Your task to perform on an android device: Clear all items from cart on costco.com. Add "lenovo thinkpad" to the cart on costco.com, then select checkout. Image 0: 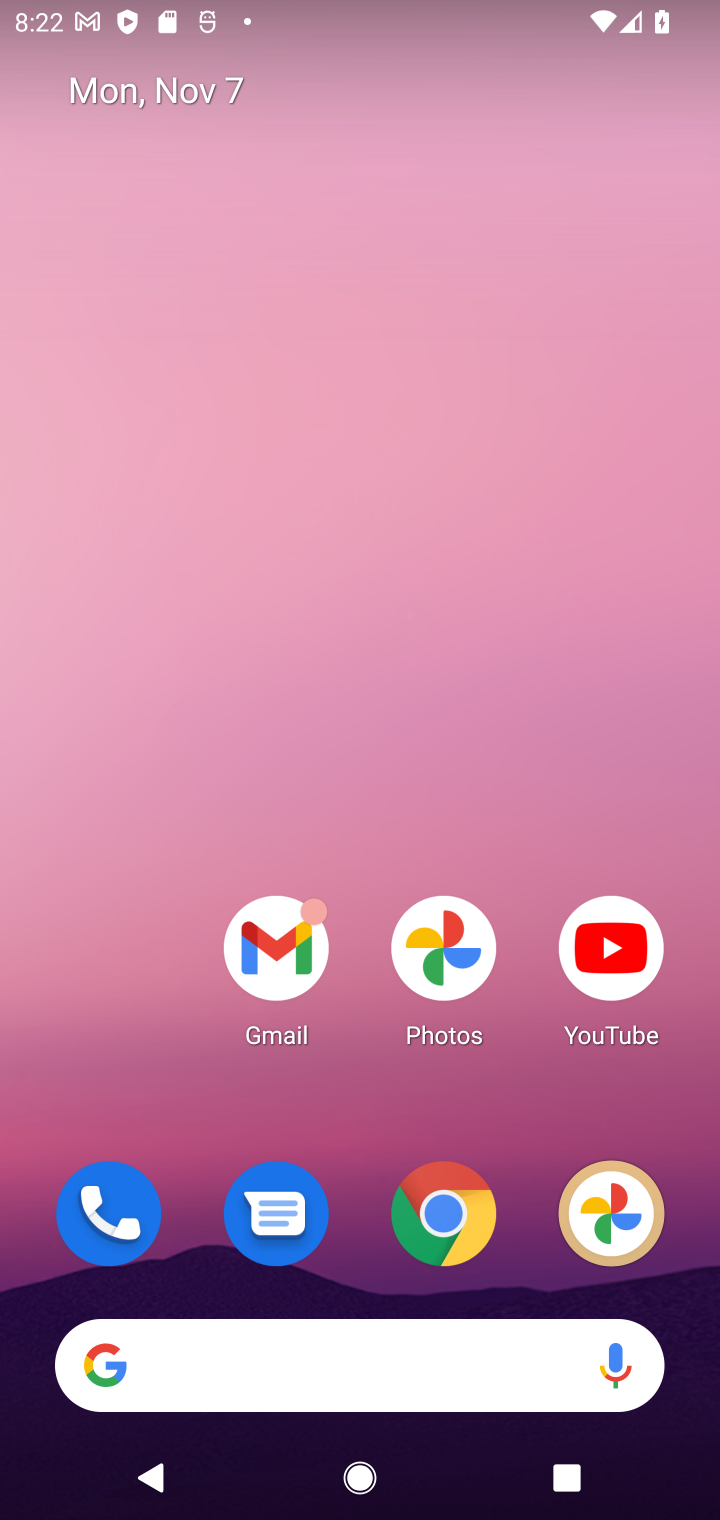
Step 0: click (456, 1219)
Your task to perform on an android device: Clear all items from cart on costco.com. Add "lenovo thinkpad" to the cart on costco.com, then select checkout. Image 1: 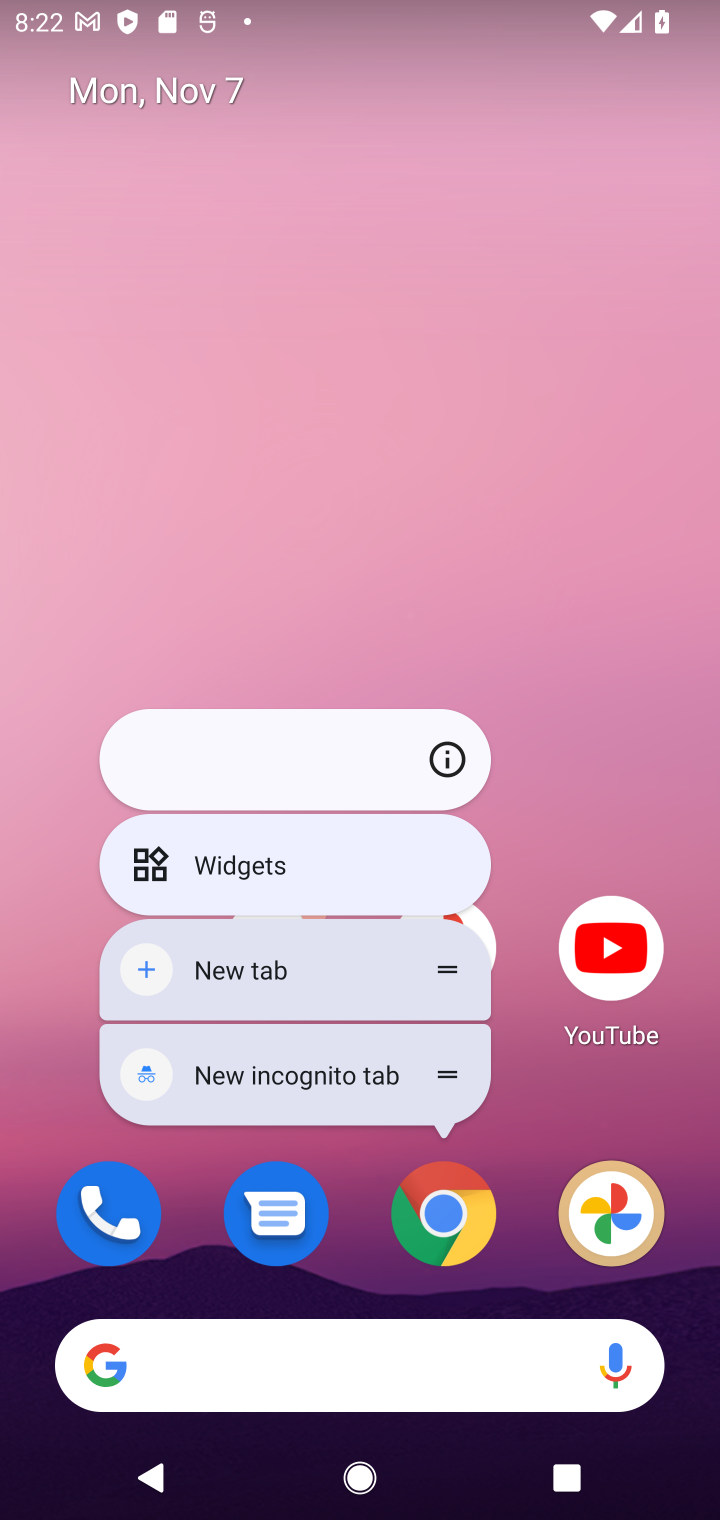
Step 1: click (445, 1215)
Your task to perform on an android device: Clear all items from cart on costco.com. Add "lenovo thinkpad" to the cart on costco.com, then select checkout. Image 2: 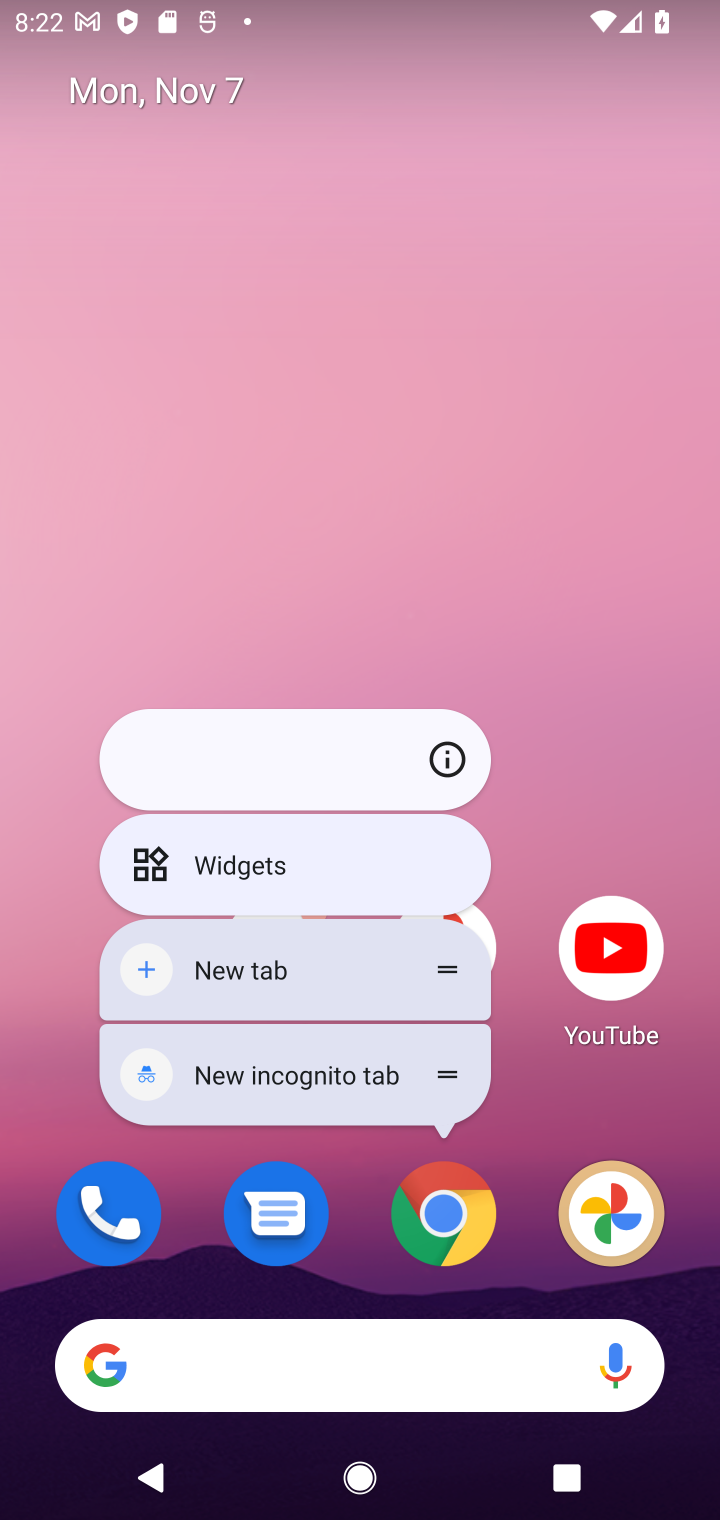
Step 2: click (447, 1215)
Your task to perform on an android device: Clear all items from cart on costco.com. Add "lenovo thinkpad" to the cart on costco.com, then select checkout. Image 3: 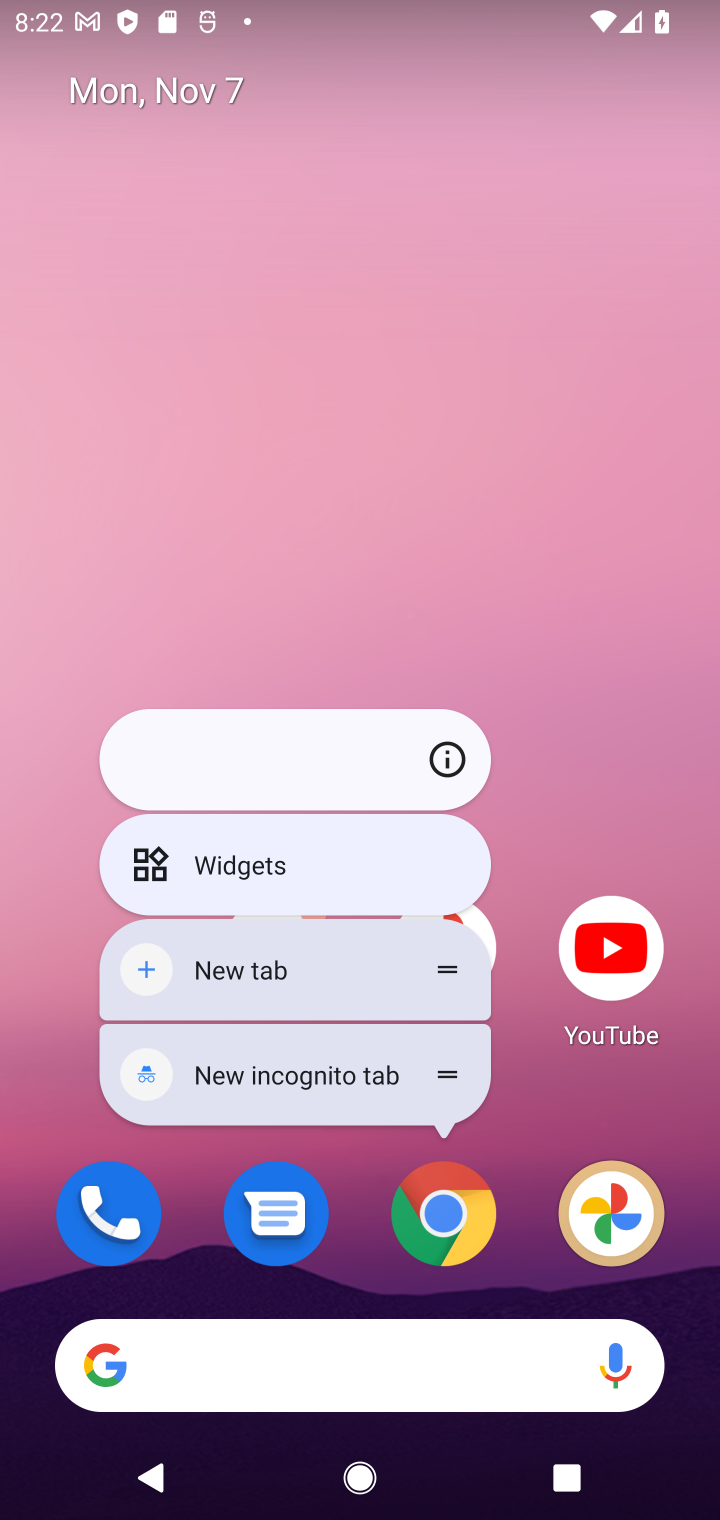
Step 3: click (447, 1215)
Your task to perform on an android device: Clear all items from cart on costco.com. Add "lenovo thinkpad" to the cart on costco.com, then select checkout. Image 4: 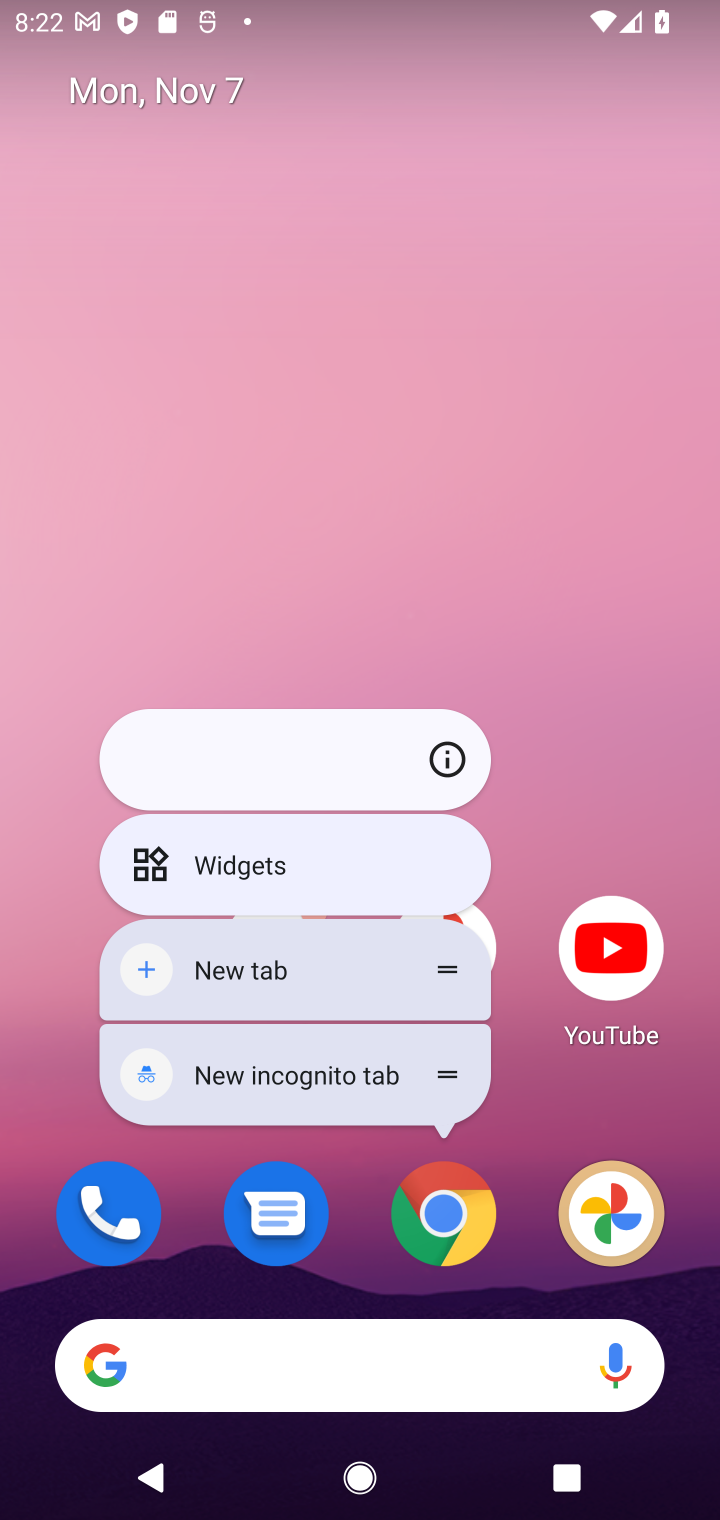
Step 4: click (447, 1215)
Your task to perform on an android device: Clear all items from cart on costco.com. Add "lenovo thinkpad" to the cart on costco.com, then select checkout. Image 5: 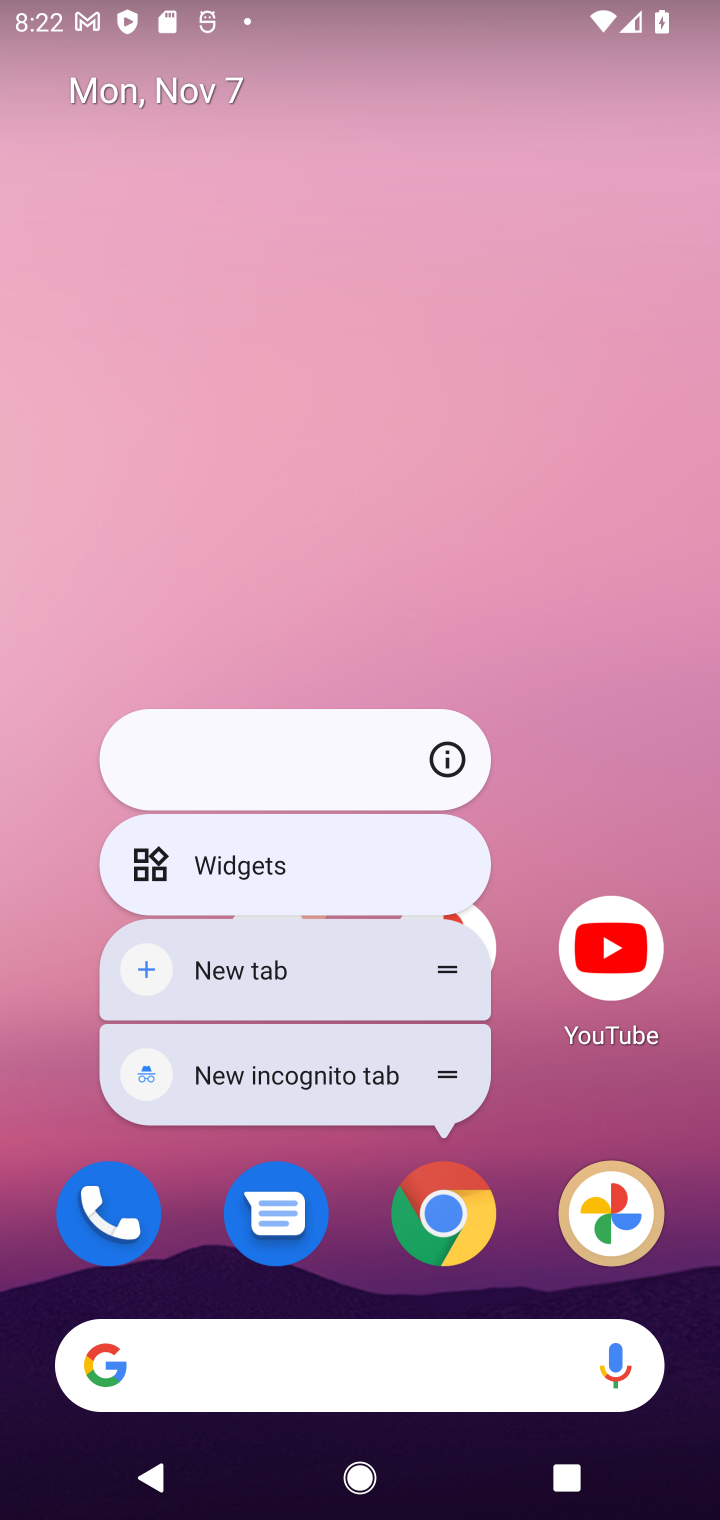
Step 5: click (444, 1203)
Your task to perform on an android device: Clear all items from cart on costco.com. Add "lenovo thinkpad" to the cart on costco.com, then select checkout. Image 6: 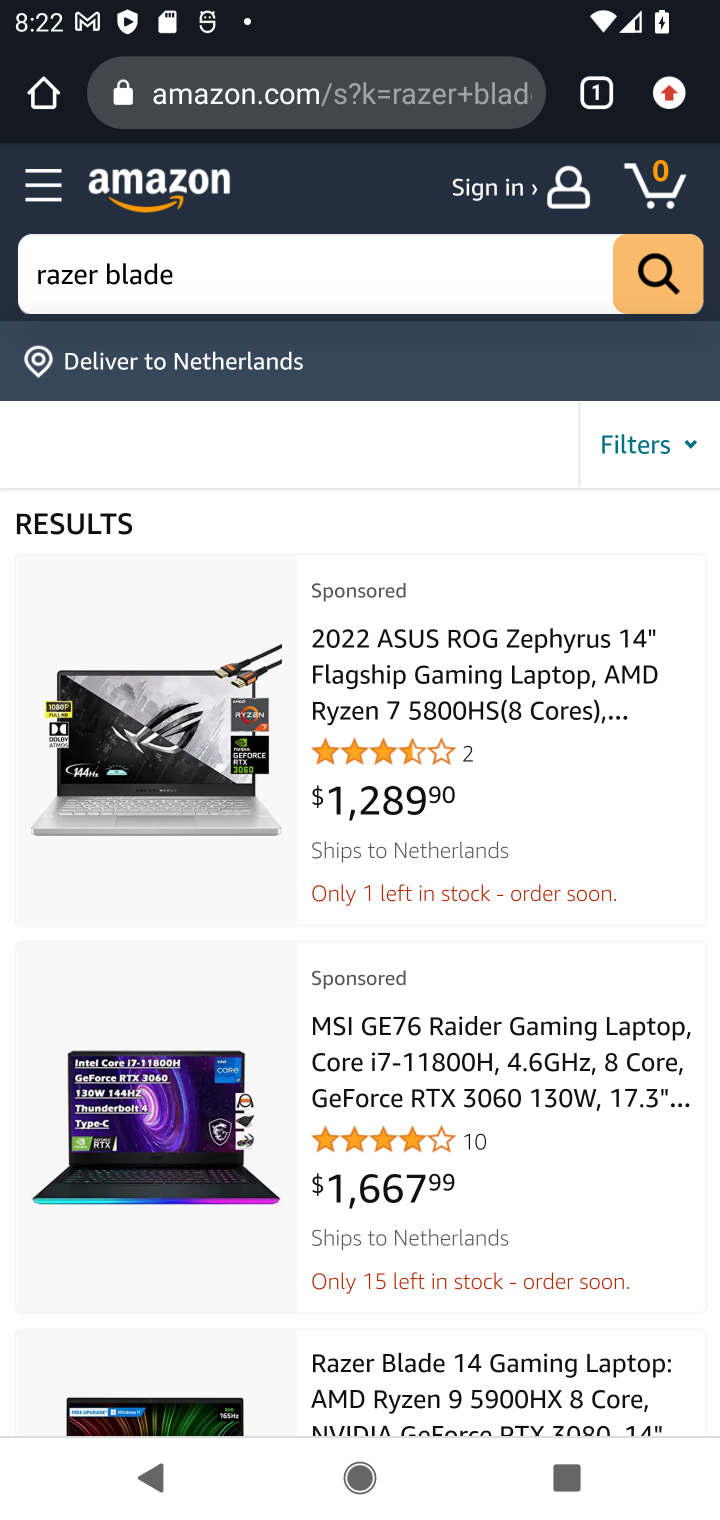
Step 6: click (318, 94)
Your task to perform on an android device: Clear all items from cart on costco.com. Add "lenovo thinkpad" to the cart on costco.com, then select checkout. Image 7: 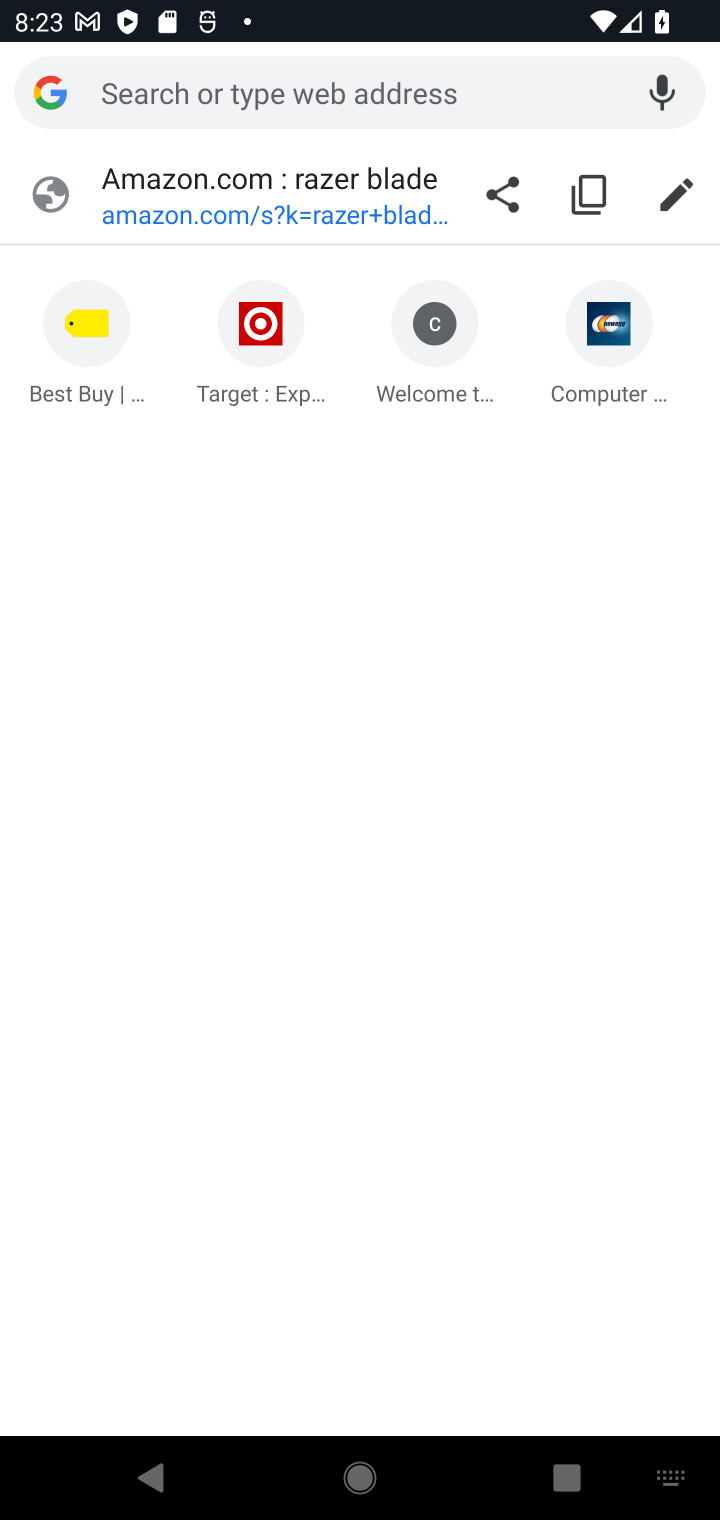
Step 7: type "costco.com"
Your task to perform on an android device: Clear all items from cart on costco.com. Add "lenovo thinkpad" to the cart on costco.com, then select checkout. Image 8: 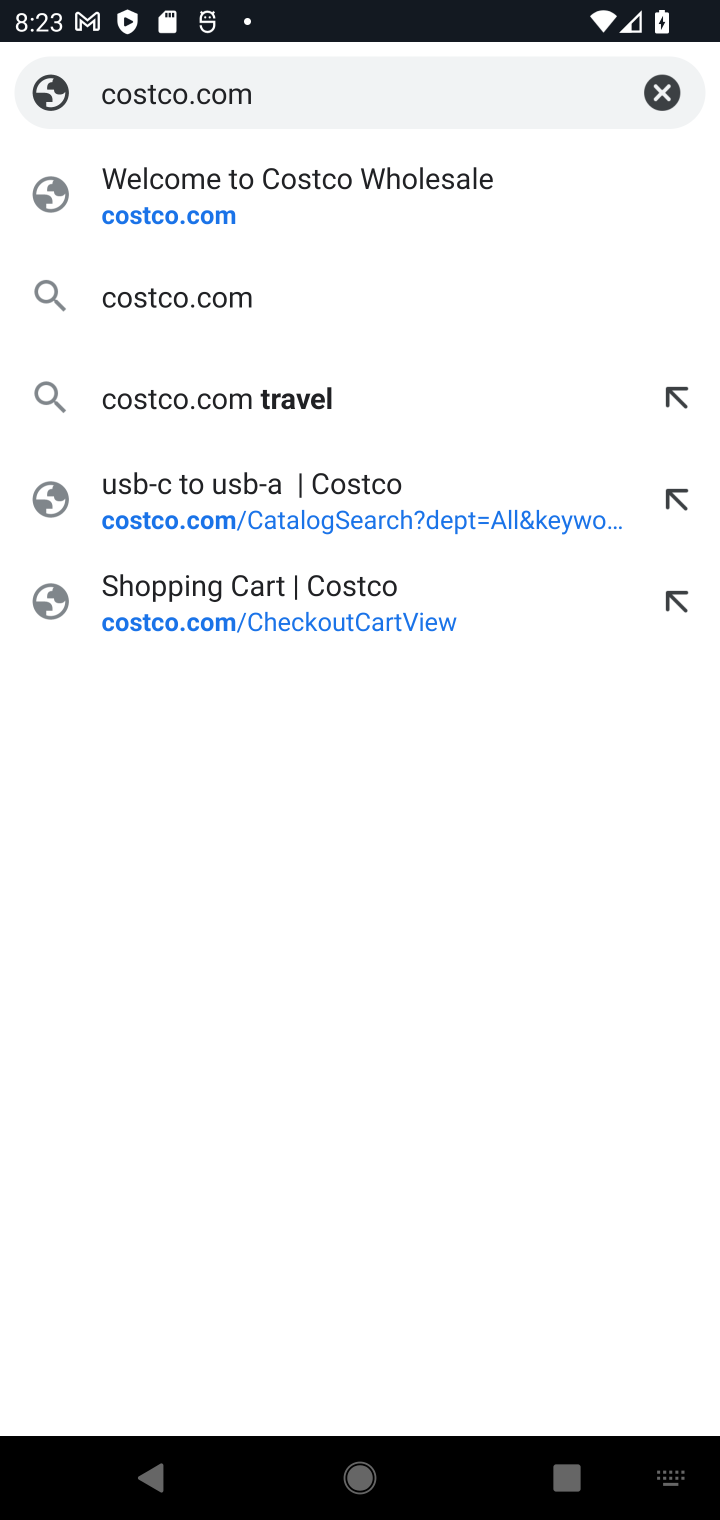
Step 8: click (124, 196)
Your task to perform on an android device: Clear all items from cart on costco.com. Add "lenovo thinkpad" to the cart on costco.com, then select checkout. Image 9: 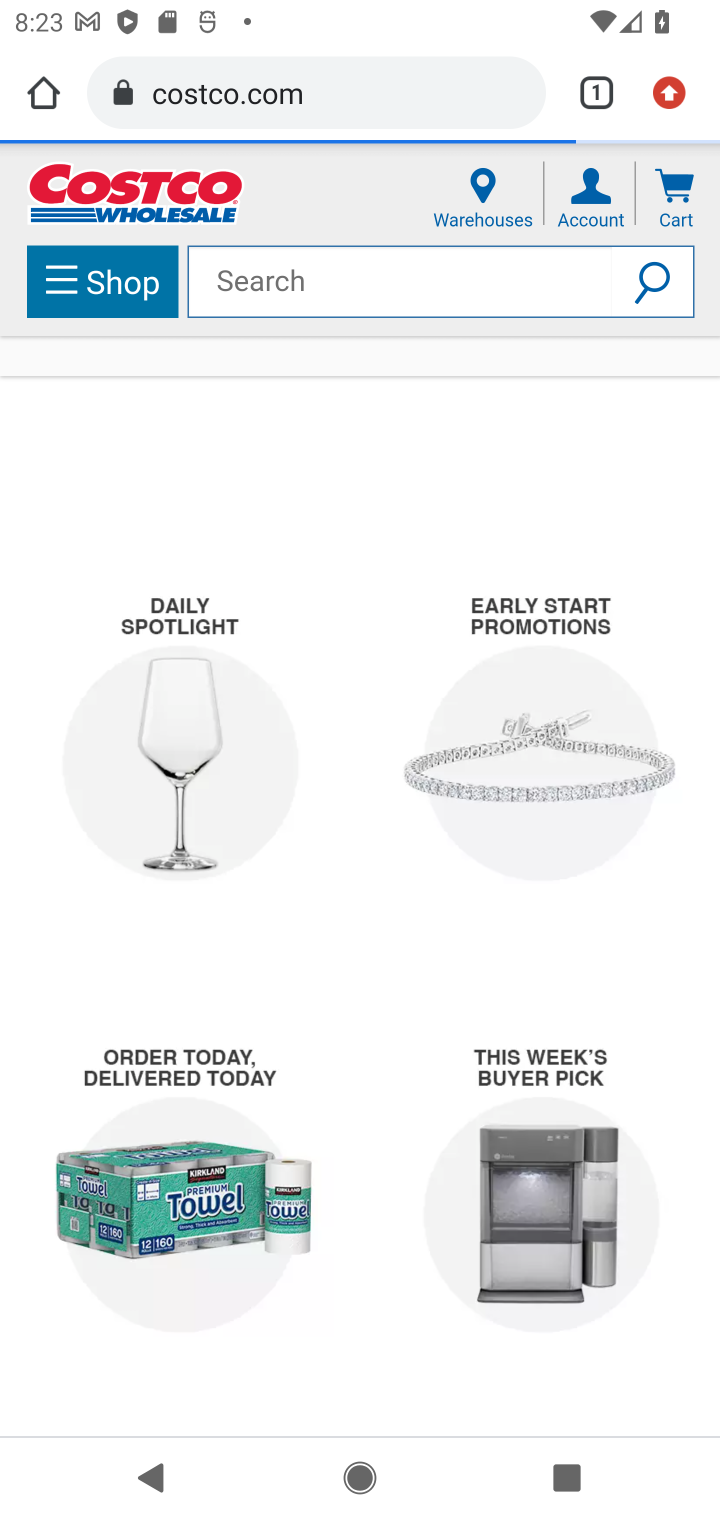
Step 9: click (668, 199)
Your task to perform on an android device: Clear all items from cart on costco.com. Add "lenovo thinkpad" to the cart on costco.com, then select checkout. Image 10: 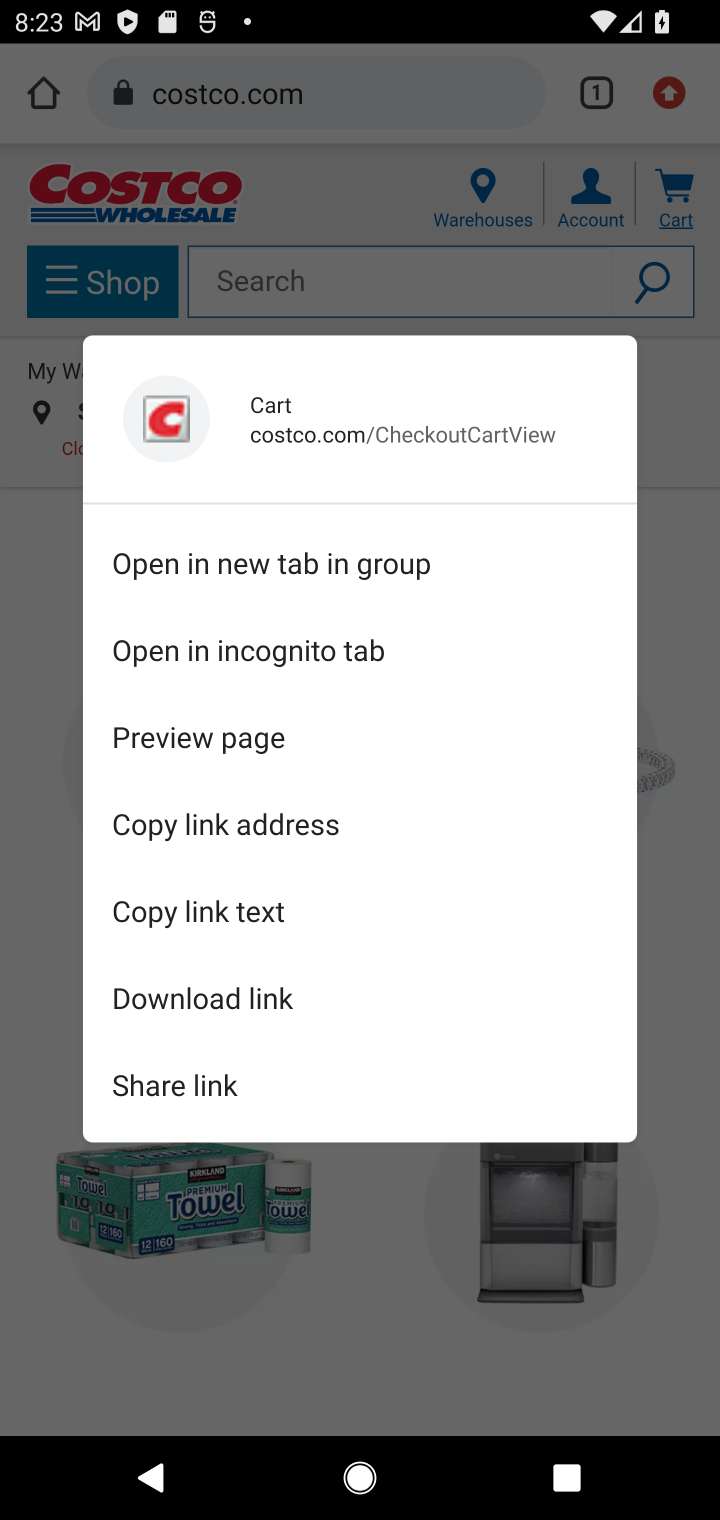
Step 10: click (668, 199)
Your task to perform on an android device: Clear all items from cart on costco.com. Add "lenovo thinkpad" to the cart on costco.com, then select checkout. Image 11: 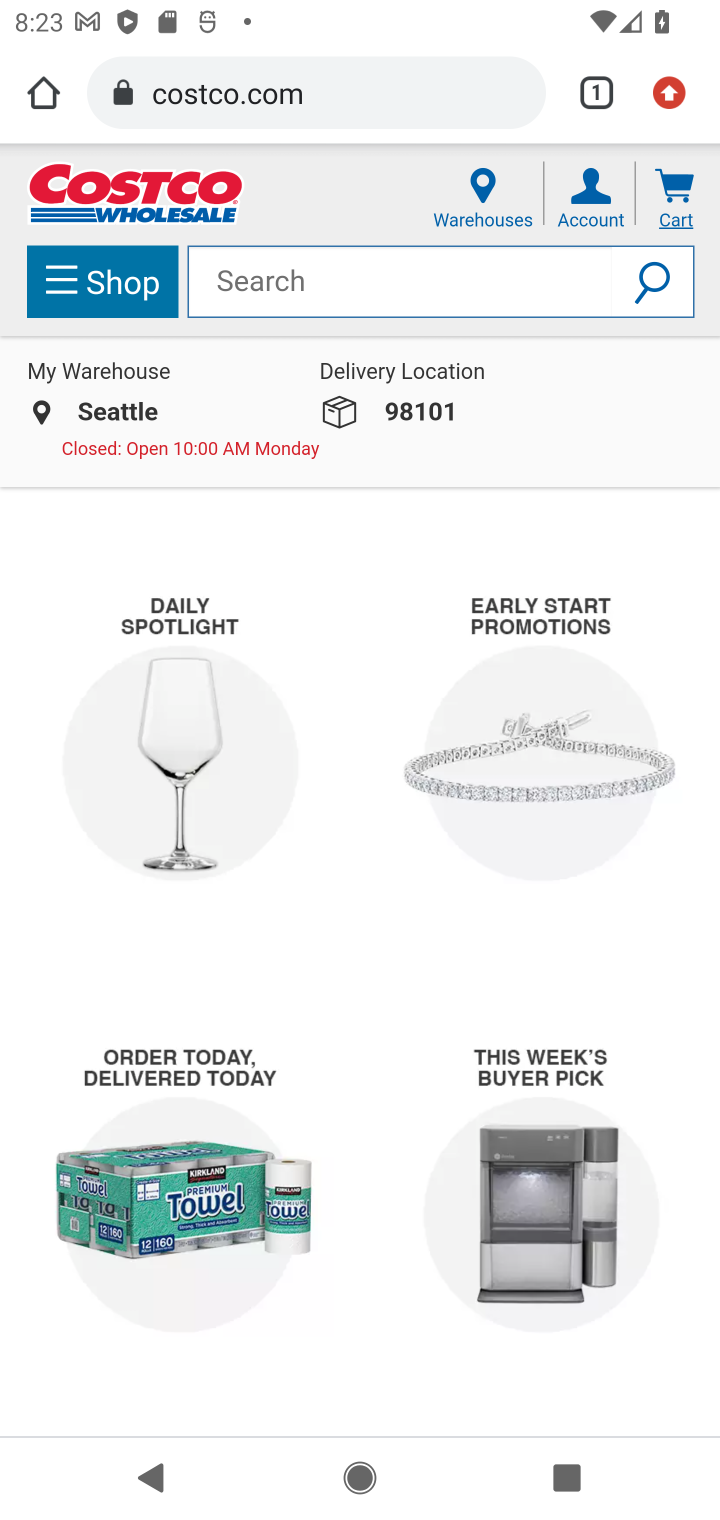
Step 11: click (683, 195)
Your task to perform on an android device: Clear all items from cart on costco.com. Add "lenovo thinkpad" to the cart on costco.com, then select checkout. Image 12: 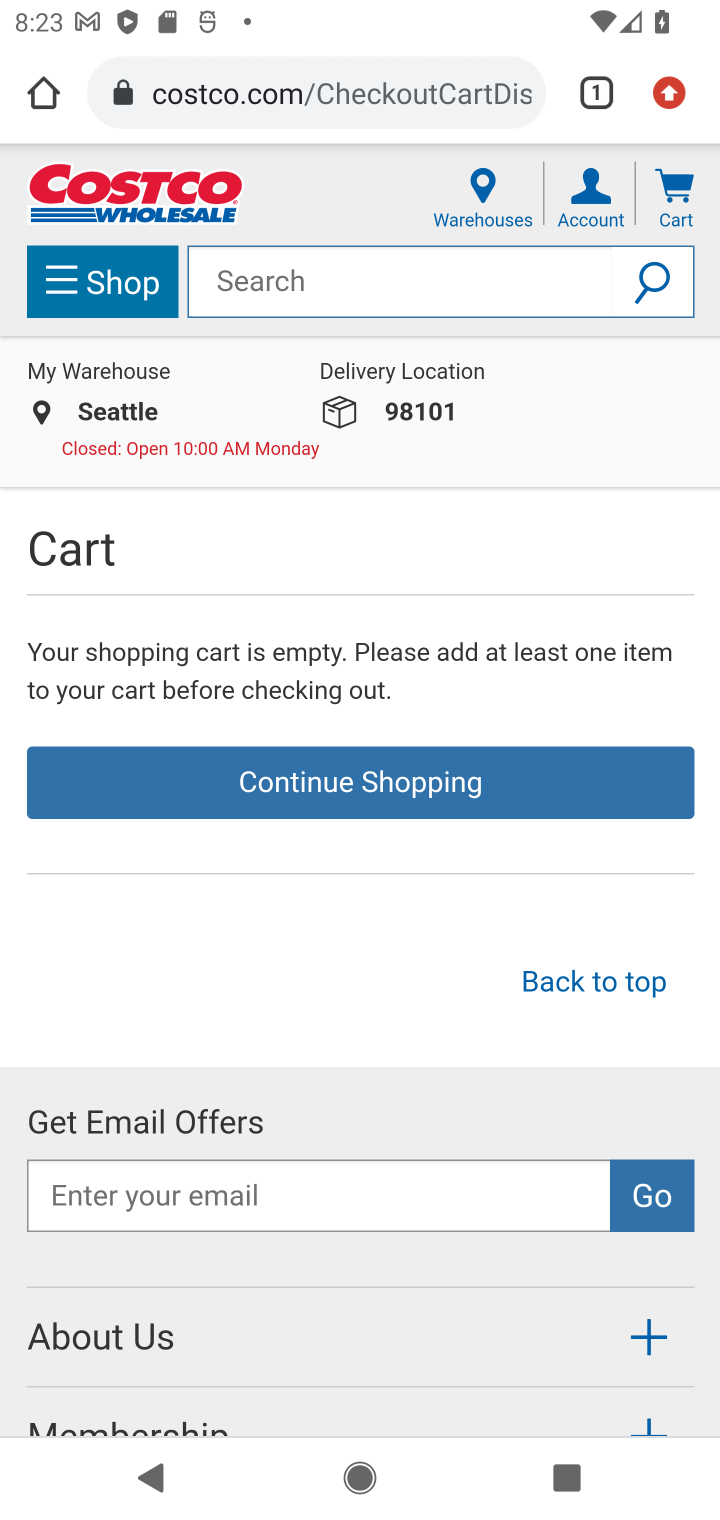
Step 12: click (269, 287)
Your task to perform on an android device: Clear all items from cart on costco.com. Add "lenovo thinkpad" to the cart on costco.com, then select checkout. Image 13: 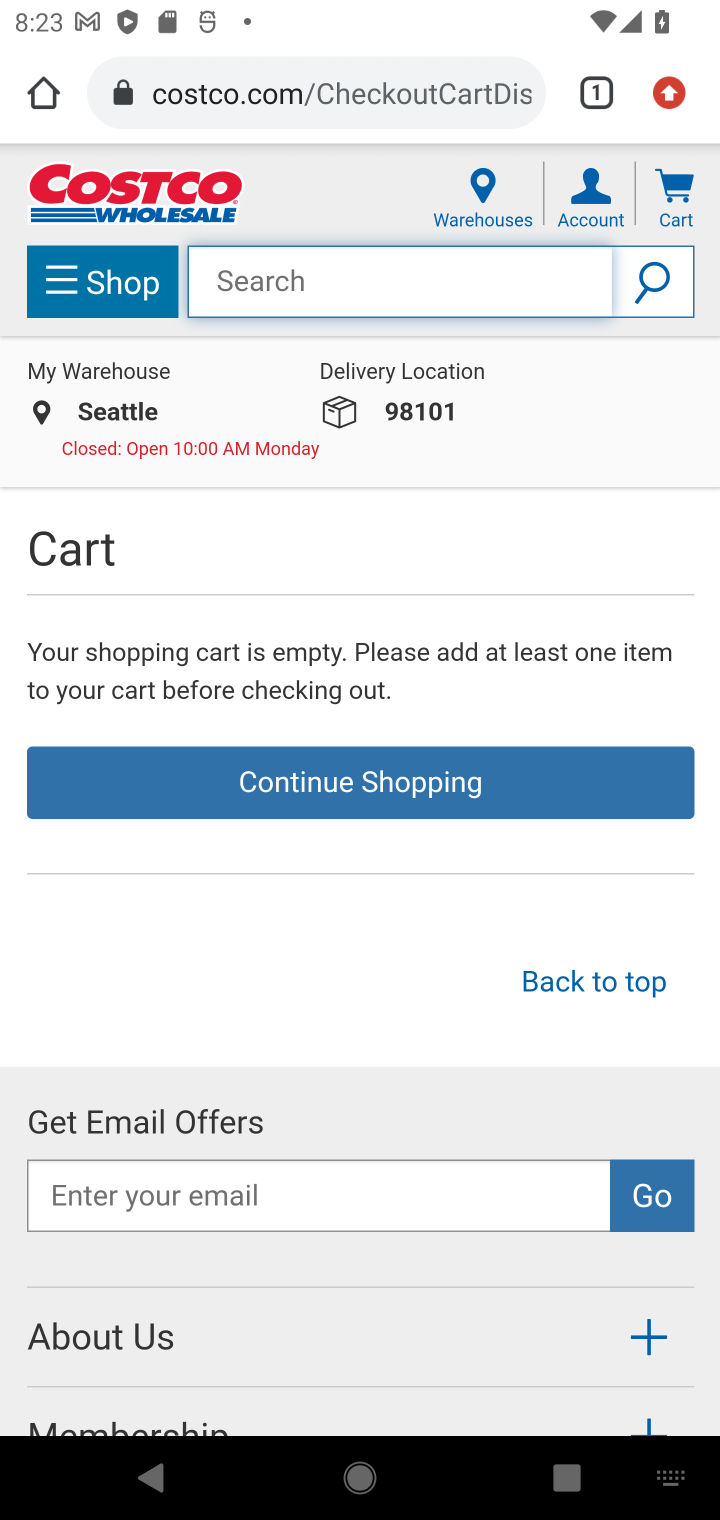
Step 13: type "lenovo thinkpad"
Your task to perform on an android device: Clear all items from cart on costco.com. Add "lenovo thinkpad" to the cart on costco.com, then select checkout. Image 14: 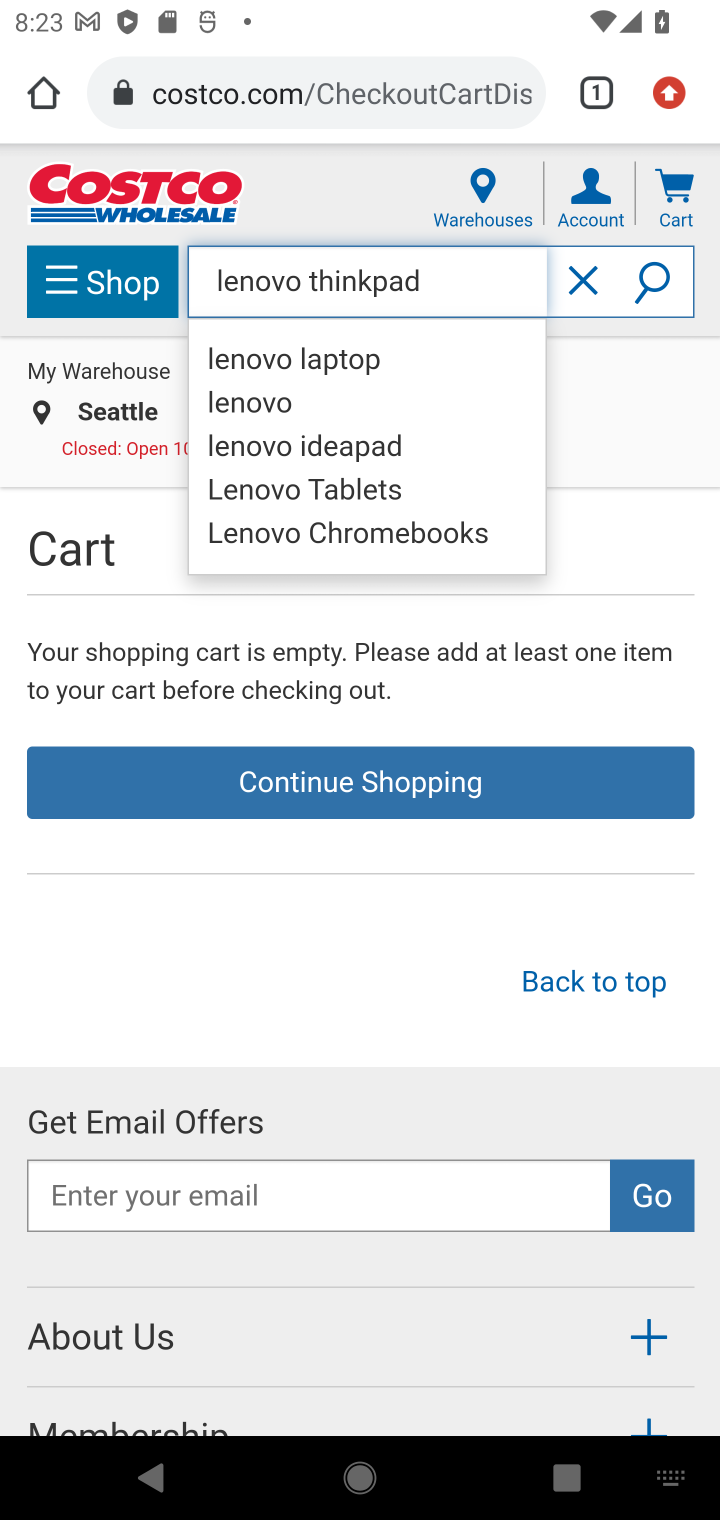
Step 14: click (634, 285)
Your task to perform on an android device: Clear all items from cart on costco.com. Add "lenovo thinkpad" to the cart on costco.com, then select checkout. Image 15: 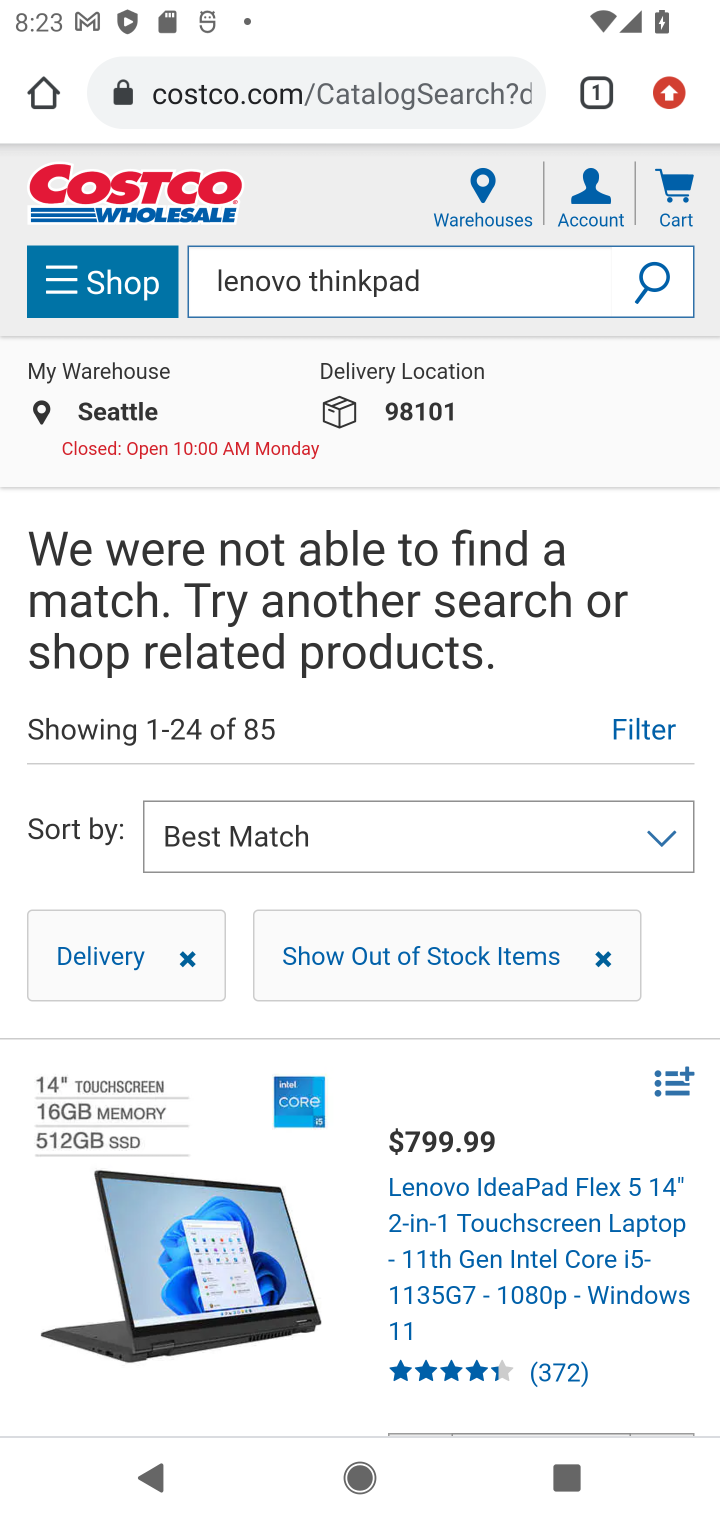
Step 15: task complete